Your task to perform on an android device: Open the Play Movies app and select the watchlist tab. Image 0: 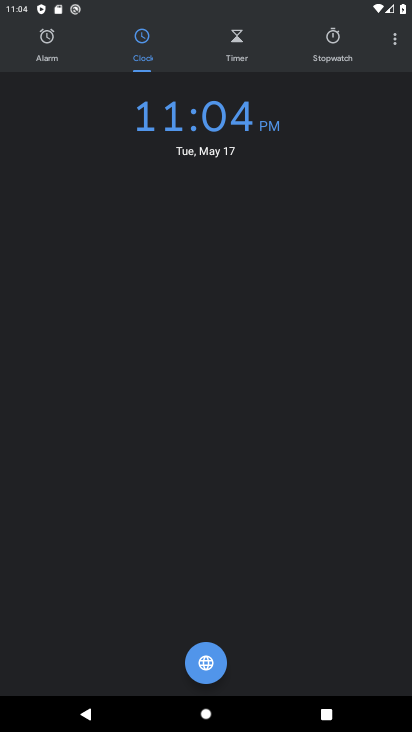
Step 0: press home button
Your task to perform on an android device: Open the Play Movies app and select the watchlist tab. Image 1: 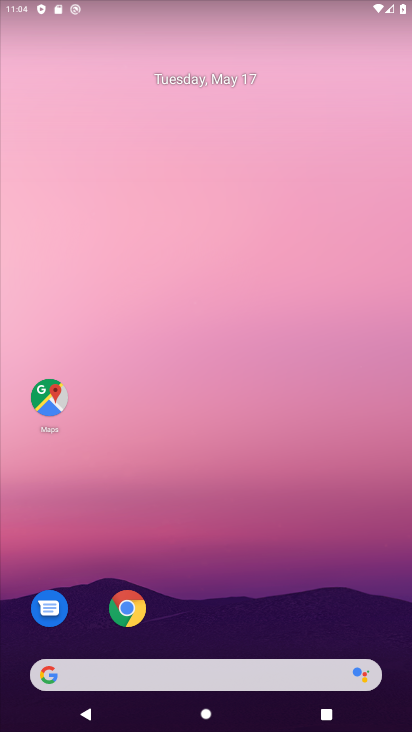
Step 1: drag from (259, 563) to (223, 150)
Your task to perform on an android device: Open the Play Movies app and select the watchlist tab. Image 2: 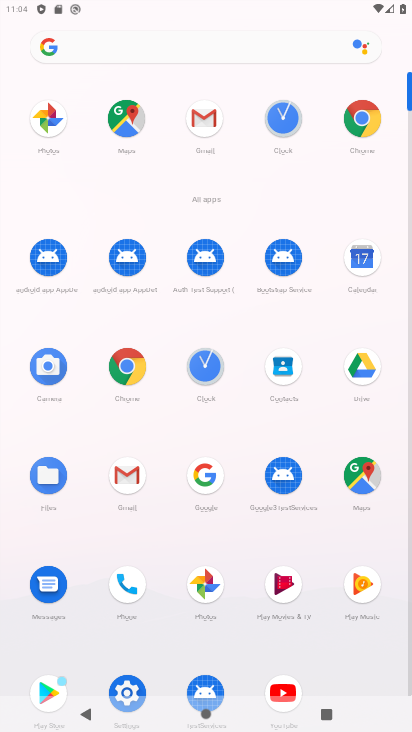
Step 2: click (277, 595)
Your task to perform on an android device: Open the Play Movies app and select the watchlist tab. Image 3: 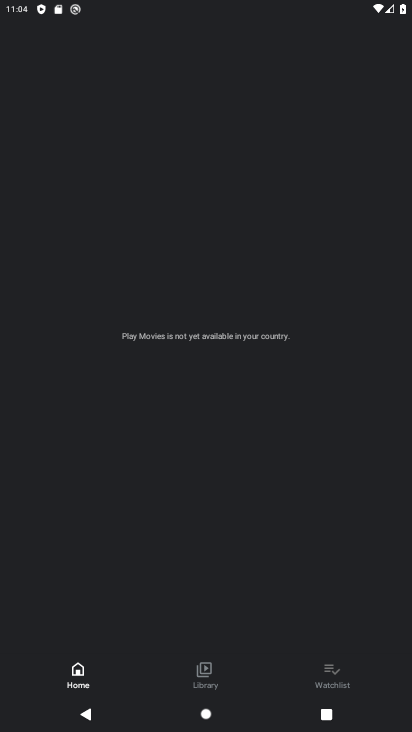
Step 3: click (329, 669)
Your task to perform on an android device: Open the Play Movies app and select the watchlist tab. Image 4: 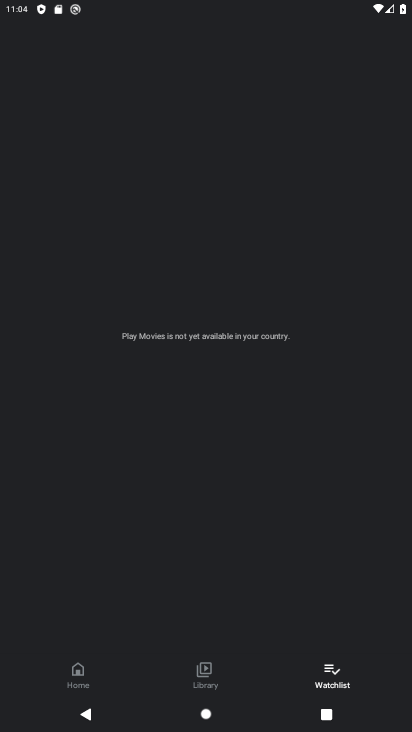
Step 4: task complete